Your task to perform on an android device: turn notification dots on Image 0: 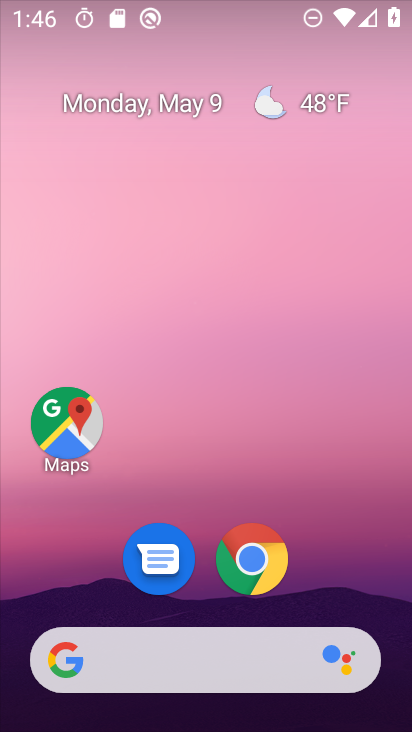
Step 0: drag from (191, 593) to (219, 247)
Your task to perform on an android device: turn notification dots on Image 1: 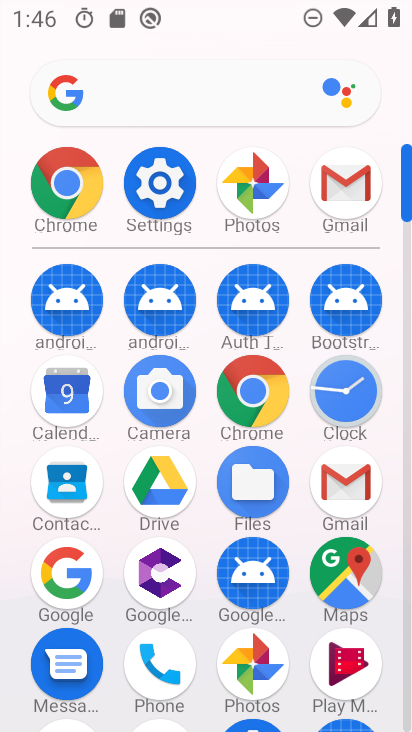
Step 1: click (159, 159)
Your task to perform on an android device: turn notification dots on Image 2: 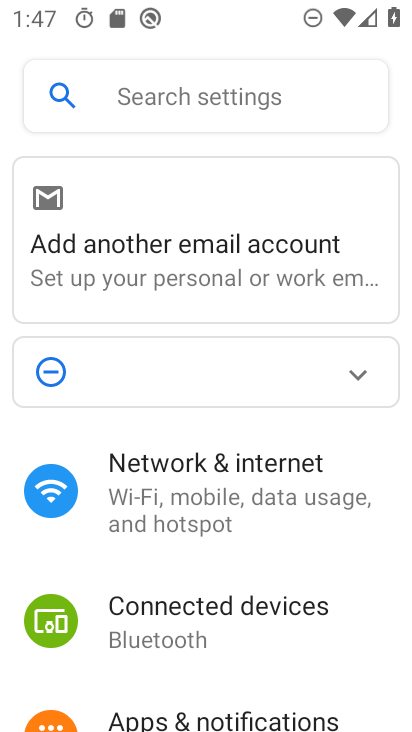
Step 2: drag from (205, 590) to (264, 281)
Your task to perform on an android device: turn notification dots on Image 3: 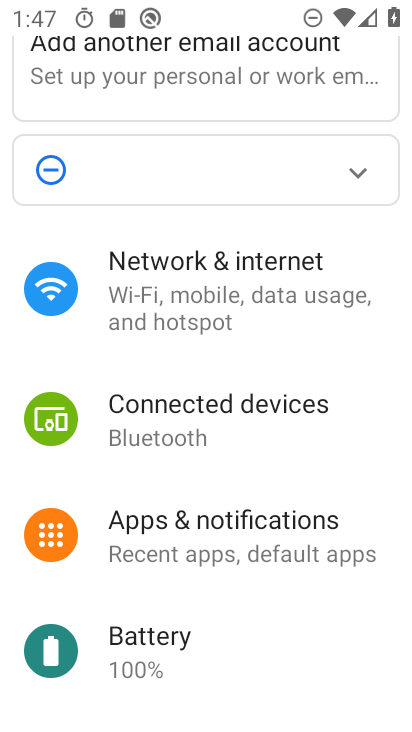
Step 3: click (219, 546)
Your task to perform on an android device: turn notification dots on Image 4: 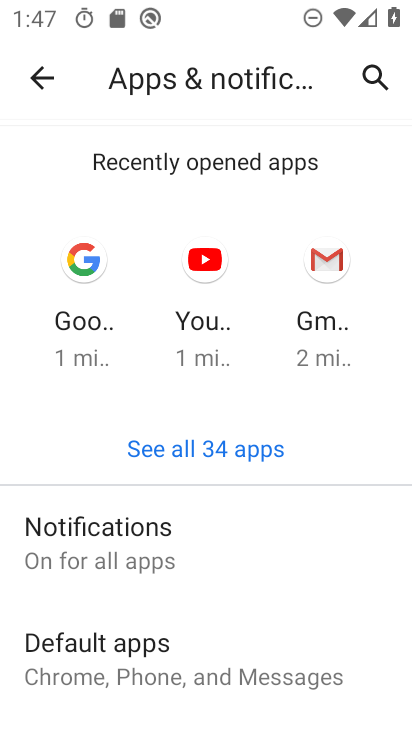
Step 4: drag from (205, 604) to (299, 215)
Your task to perform on an android device: turn notification dots on Image 5: 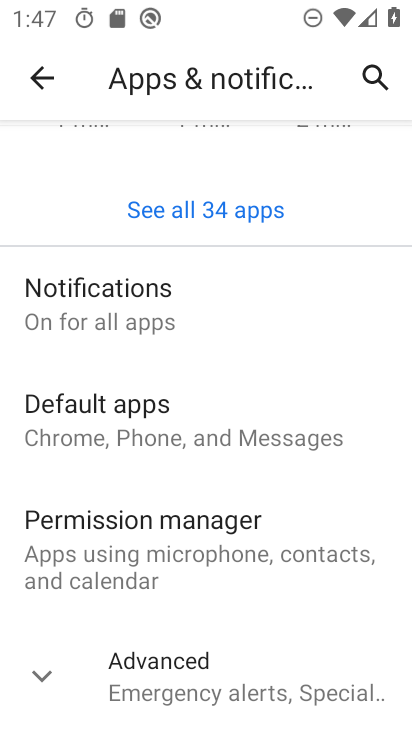
Step 5: click (161, 298)
Your task to perform on an android device: turn notification dots on Image 6: 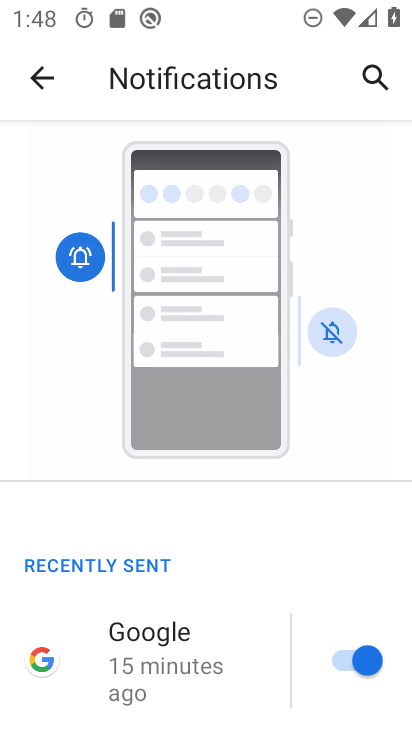
Step 6: drag from (206, 653) to (309, 183)
Your task to perform on an android device: turn notification dots on Image 7: 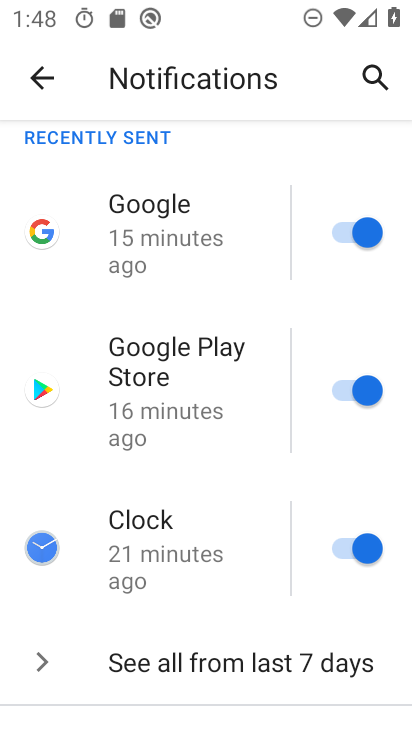
Step 7: drag from (258, 541) to (371, 55)
Your task to perform on an android device: turn notification dots on Image 8: 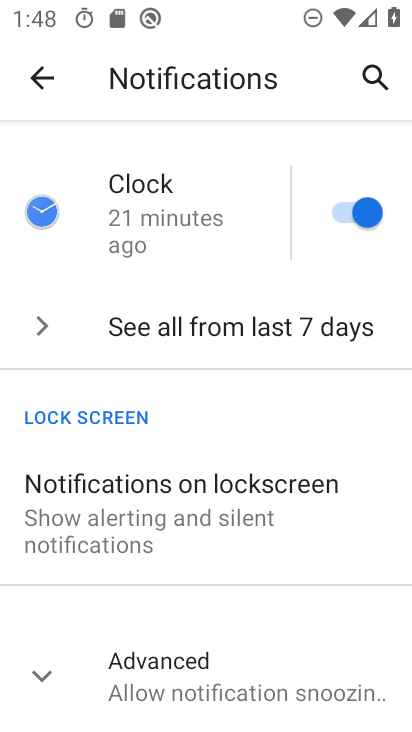
Step 8: drag from (249, 460) to (299, 139)
Your task to perform on an android device: turn notification dots on Image 9: 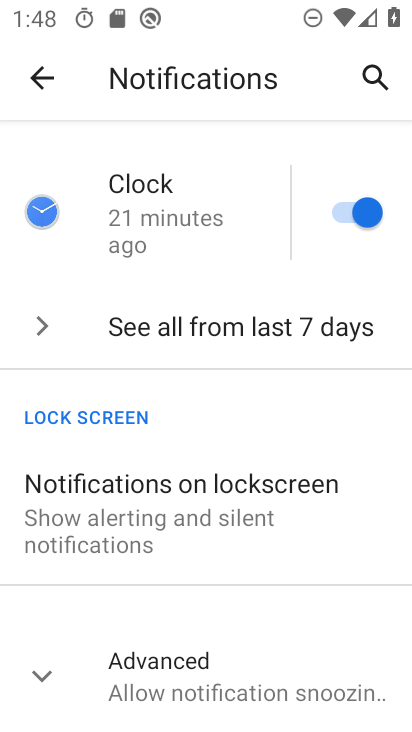
Step 9: click (206, 684)
Your task to perform on an android device: turn notification dots on Image 10: 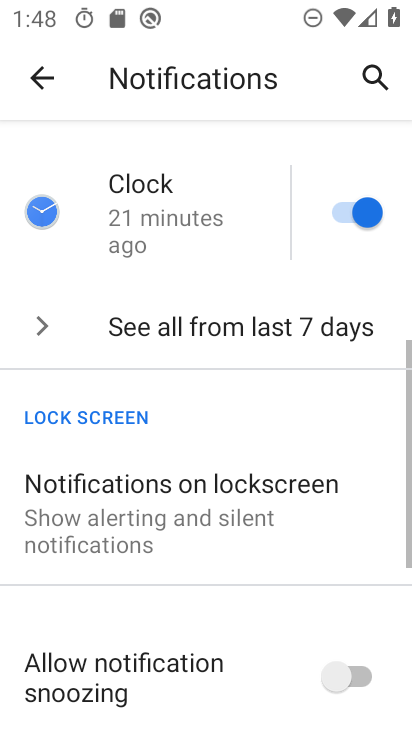
Step 10: drag from (207, 677) to (302, 178)
Your task to perform on an android device: turn notification dots on Image 11: 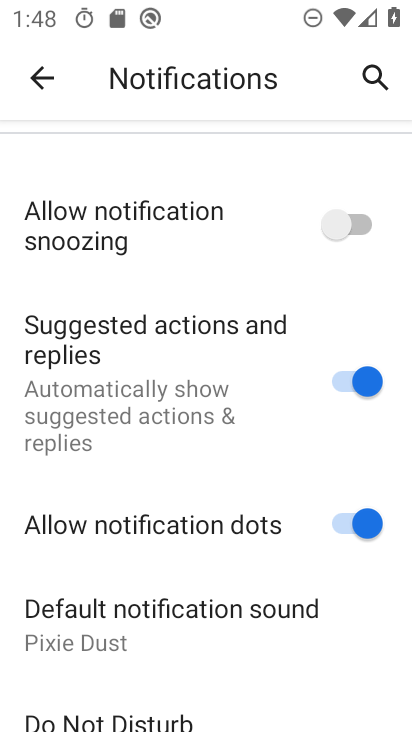
Step 11: drag from (253, 653) to (288, 285)
Your task to perform on an android device: turn notification dots on Image 12: 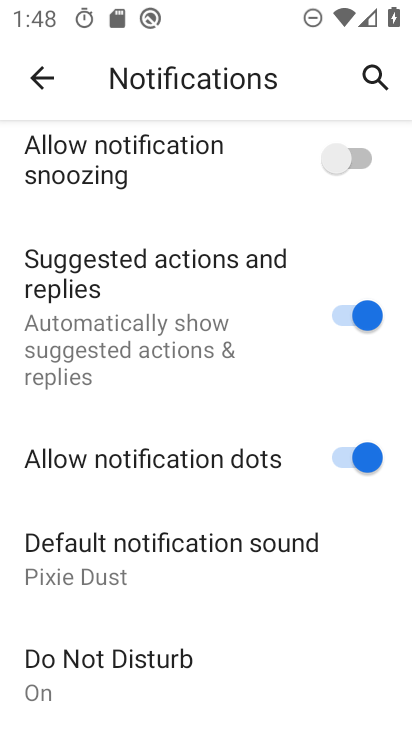
Step 12: drag from (182, 677) to (216, 312)
Your task to perform on an android device: turn notification dots on Image 13: 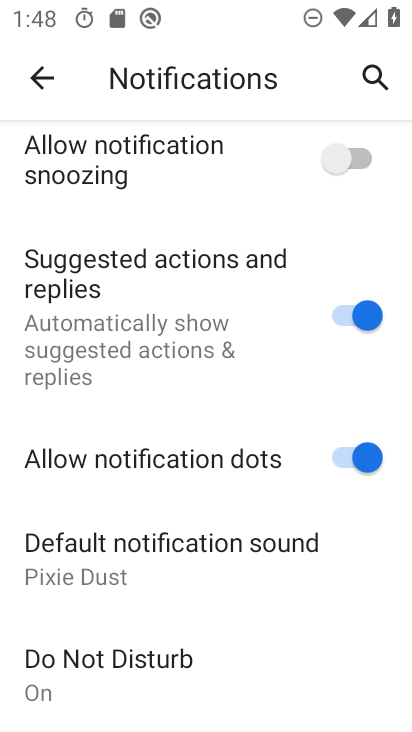
Step 13: click (354, 455)
Your task to perform on an android device: turn notification dots on Image 14: 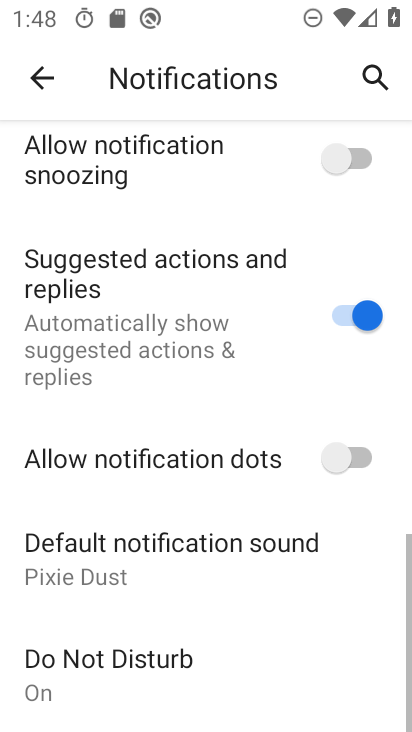
Step 14: drag from (279, 573) to (307, 252)
Your task to perform on an android device: turn notification dots on Image 15: 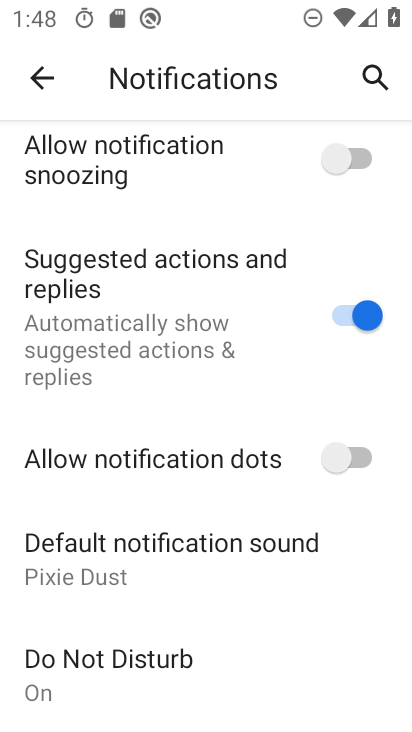
Step 15: drag from (169, 668) to (243, 312)
Your task to perform on an android device: turn notification dots on Image 16: 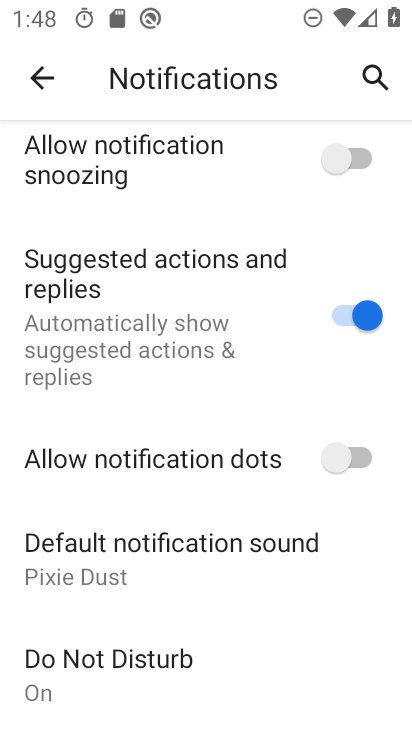
Step 16: drag from (238, 620) to (269, 265)
Your task to perform on an android device: turn notification dots on Image 17: 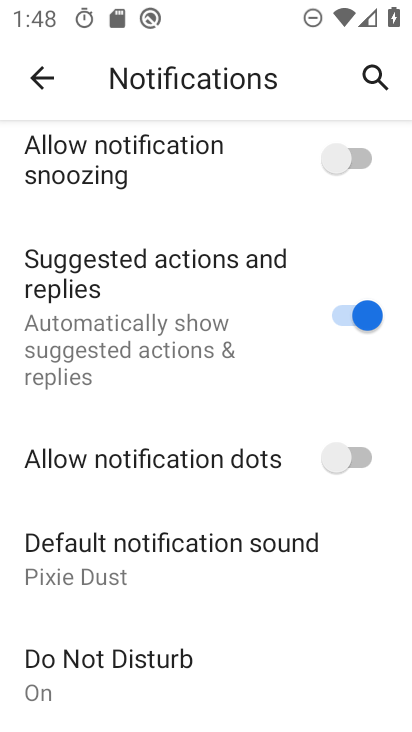
Step 17: click (333, 454)
Your task to perform on an android device: turn notification dots on Image 18: 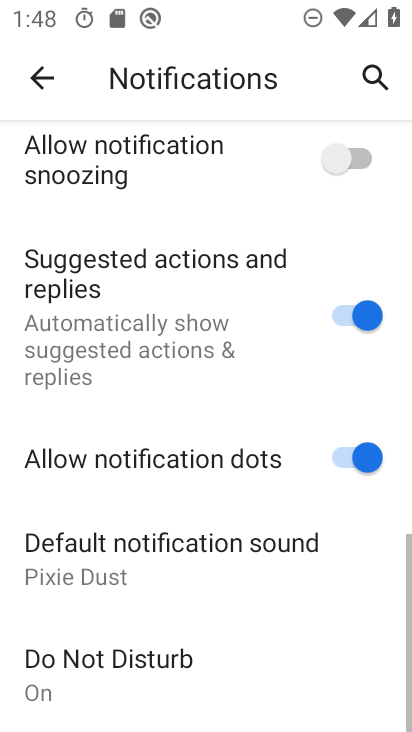
Step 18: task complete